Your task to perform on an android device: Go to battery settings Image 0: 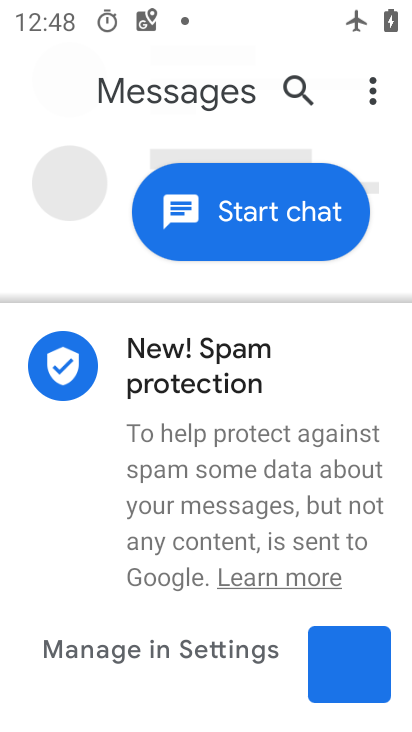
Step 0: press home button
Your task to perform on an android device: Go to battery settings Image 1: 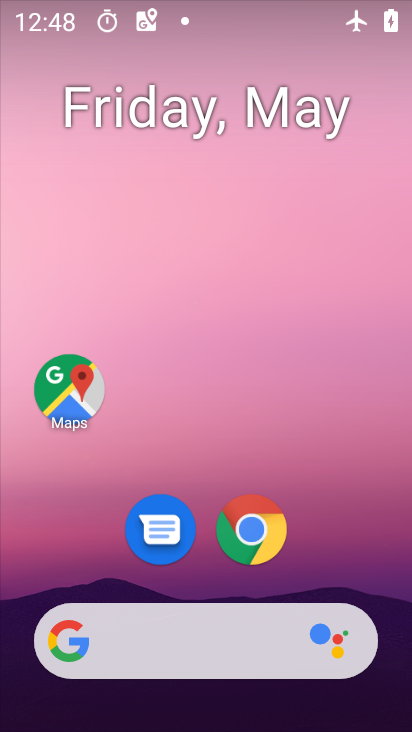
Step 1: drag from (281, 627) to (160, 220)
Your task to perform on an android device: Go to battery settings Image 2: 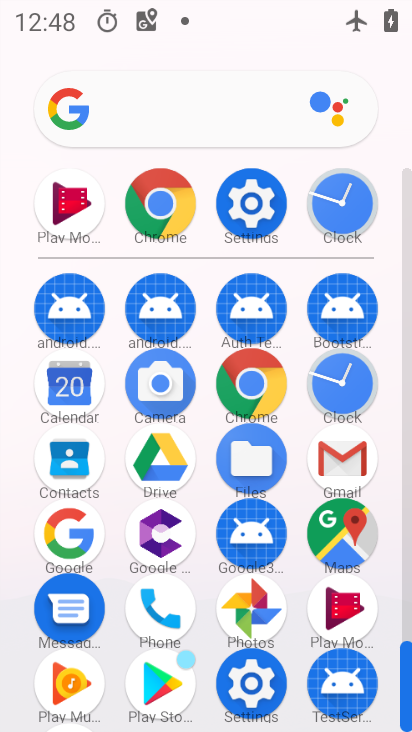
Step 2: click (257, 199)
Your task to perform on an android device: Go to battery settings Image 3: 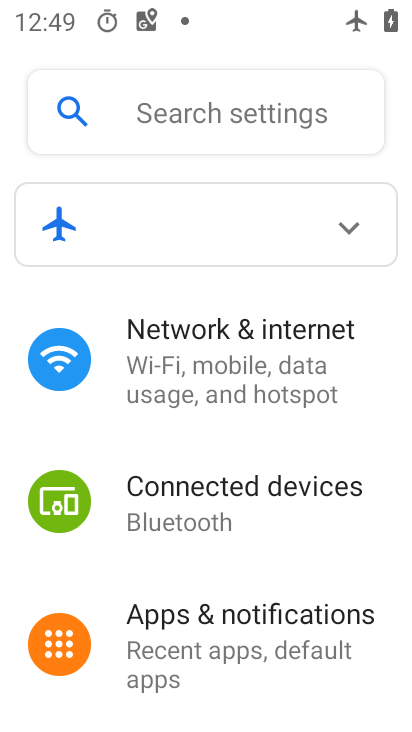
Step 3: drag from (229, 385) to (229, 287)
Your task to perform on an android device: Go to battery settings Image 4: 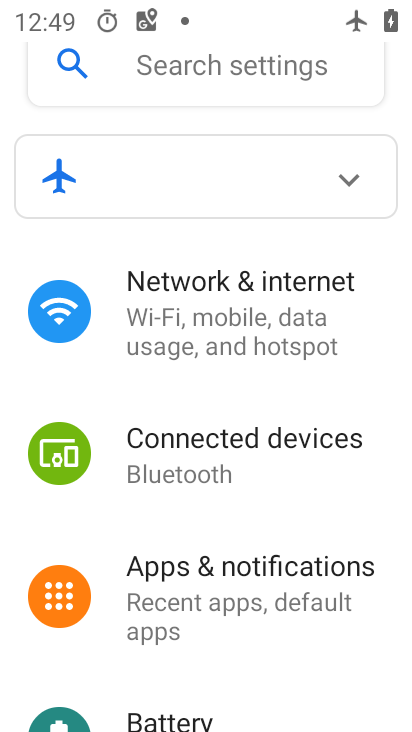
Step 4: drag from (236, 615) to (235, 307)
Your task to perform on an android device: Go to battery settings Image 5: 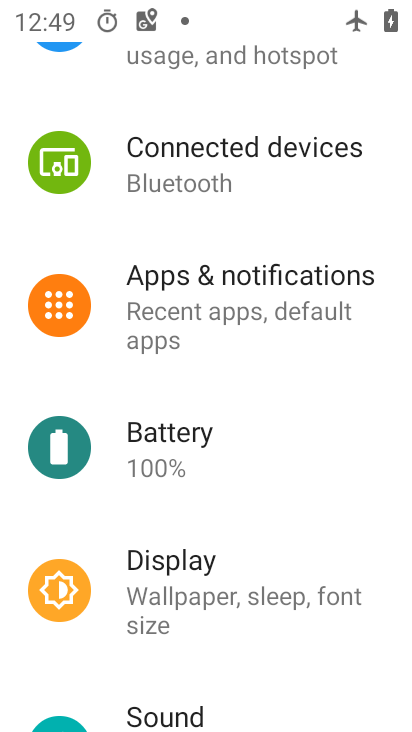
Step 5: click (218, 434)
Your task to perform on an android device: Go to battery settings Image 6: 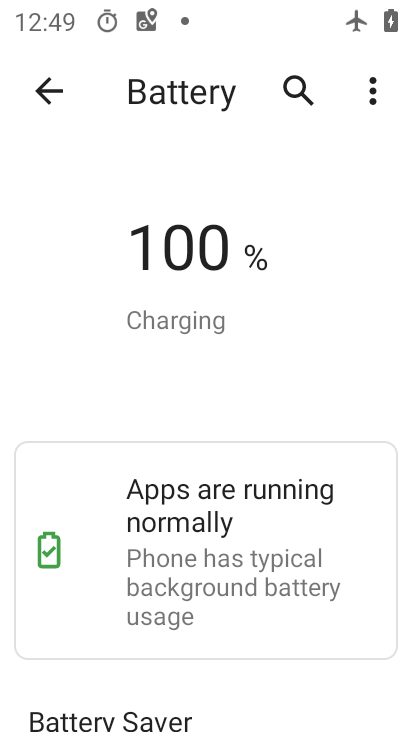
Step 6: task complete